Your task to perform on an android device: find which apps use the phone's location Image 0: 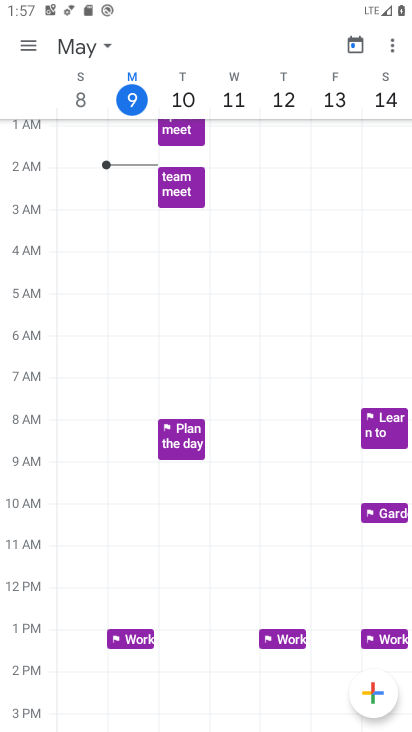
Step 0: press home button
Your task to perform on an android device: find which apps use the phone's location Image 1: 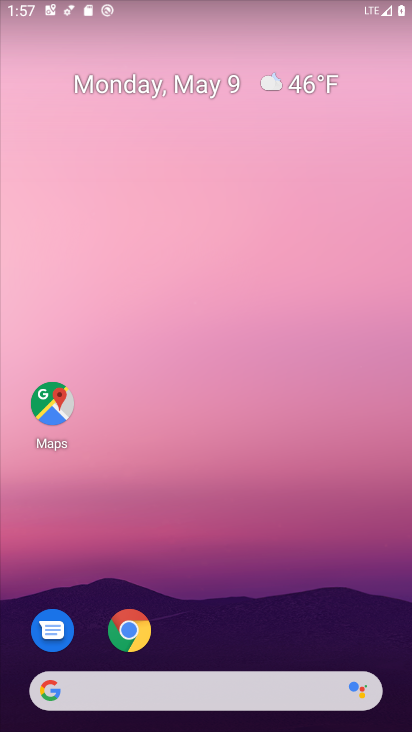
Step 1: drag from (208, 631) to (233, 117)
Your task to perform on an android device: find which apps use the phone's location Image 2: 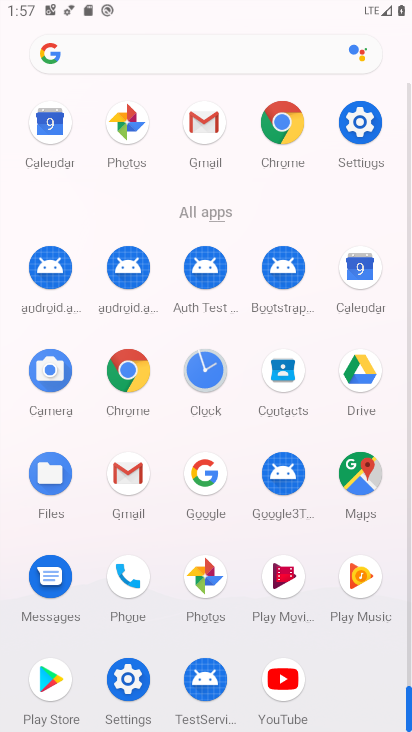
Step 2: click (379, 129)
Your task to perform on an android device: find which apps use the phone's location Image 3: 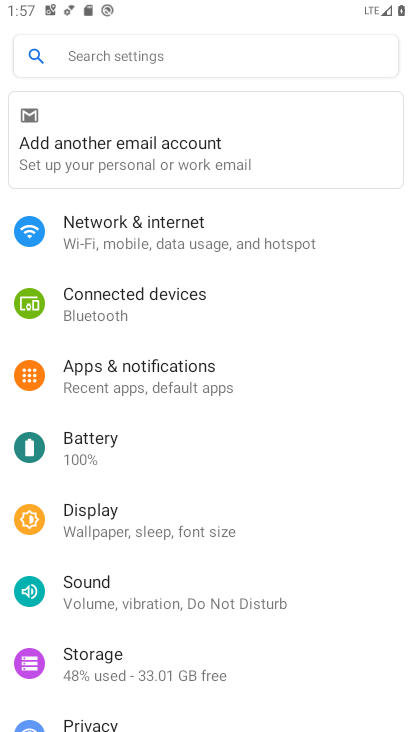
Step 3: drag from (115, 701) to (174, 338)
Your task to perform on an android device: find which apps use the phone's location Image 4: 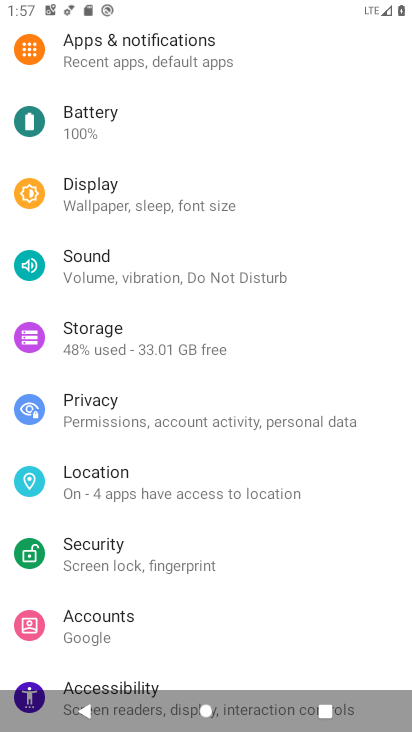
Step 4: click (85, 485)
Your task to perform on an android device: find which apps use the phone's location Image 5: 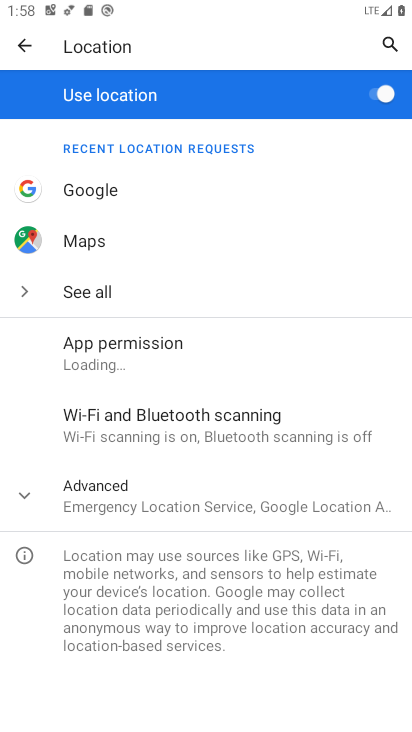
Step 5: click (107, 374)
Your task to perform on an android device: find which apps use the phone's location Image 6: 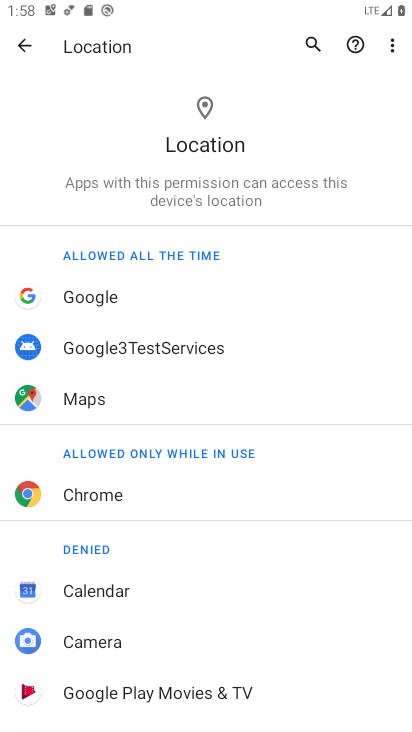
Step 6: task complete